Your task to perform on an android device: Open Chrome and go to settings Image 0: 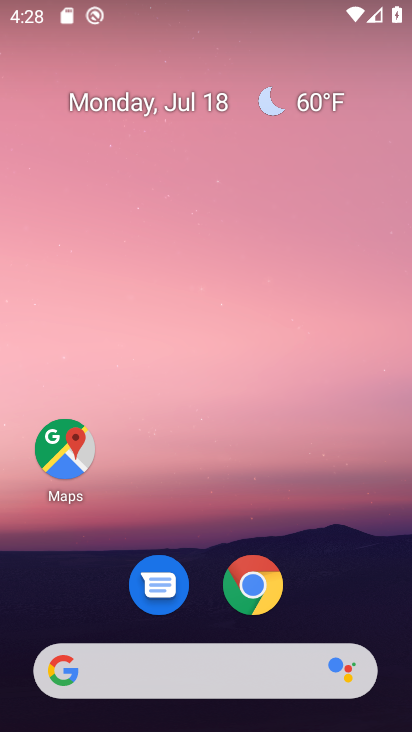
Step 0: click (248, 584)
Your task to perform on an android device: Open Chrome and go to settings Image 1: 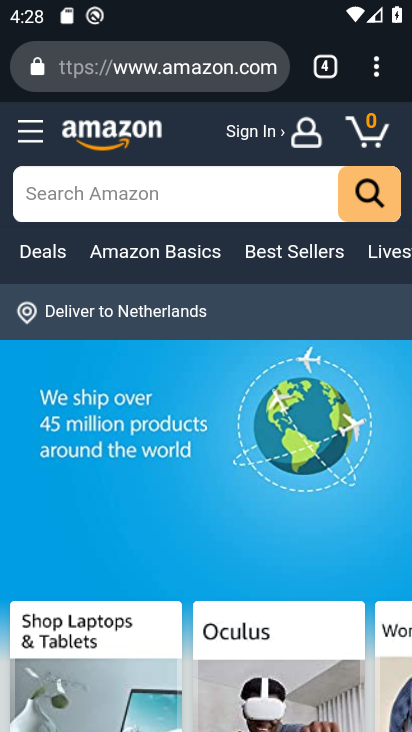
Step 1: click (382, 81)
Your task to perform on an android device: Open Chrome and go to settings Image 2: 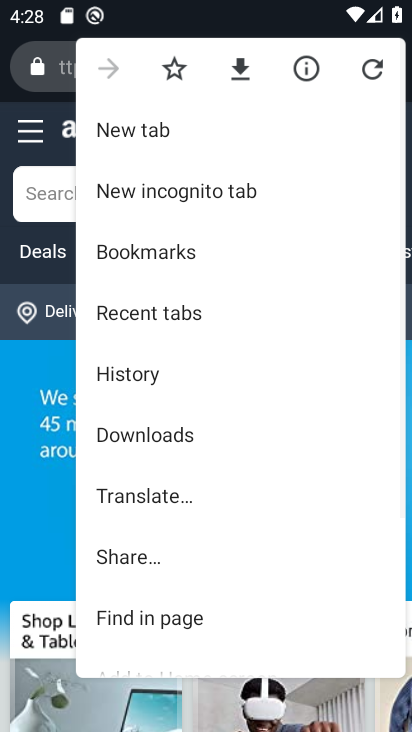
Step 2: drag from (231, 472) to (260, 221)
Your task to perform on an android device: Open Chrome and go to settings Image 3: 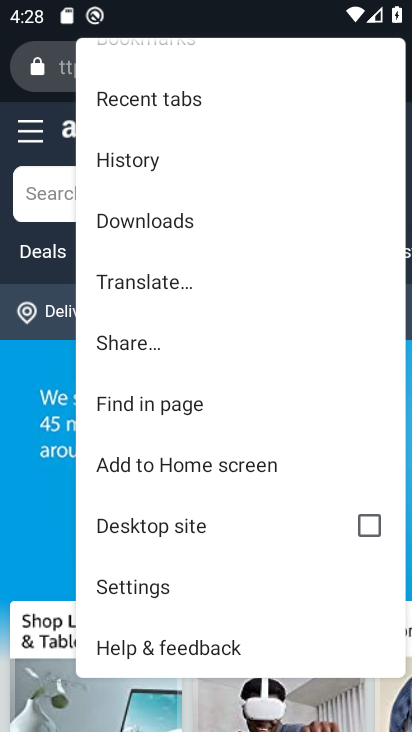
Step 3: click (159, 587)
Your task to perform on an android device: Open Chrome and go to settings Image 4: 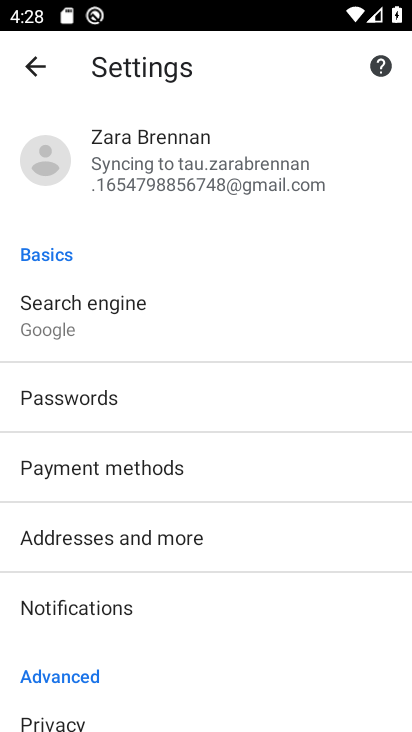
Step 4: task complete